Your task to perform on an android device: Open Maps and search for coffee Image 0: 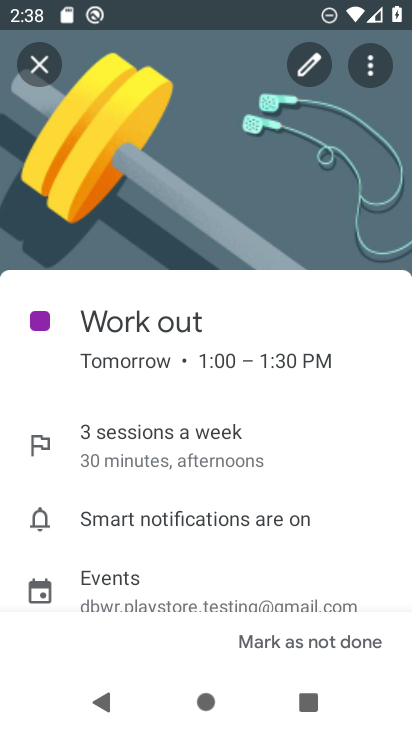
Step 0: press back button
Your task to perform on an android device: Open Maps and search for coffee Image 1: 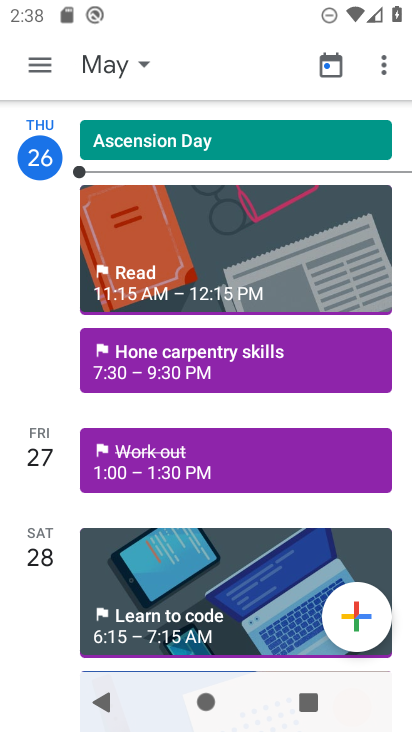
Step 1: press home button
Your task to perform on an android device: Open Maps and search for coffee Image 2: 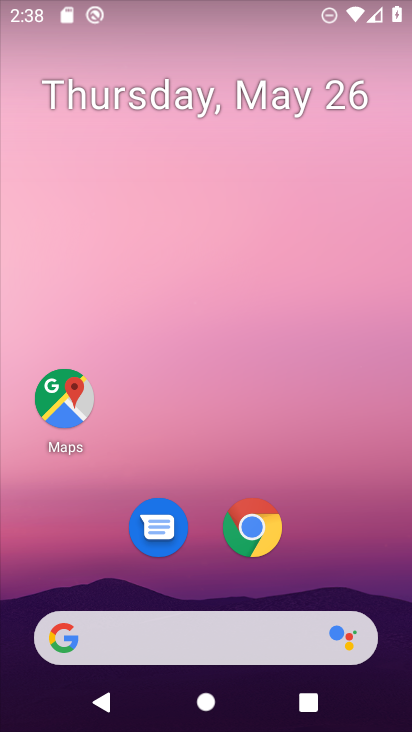
Step 2: click (50, 392)
Your task to perform on an android device: Open Maps and search for coffee Image 3: 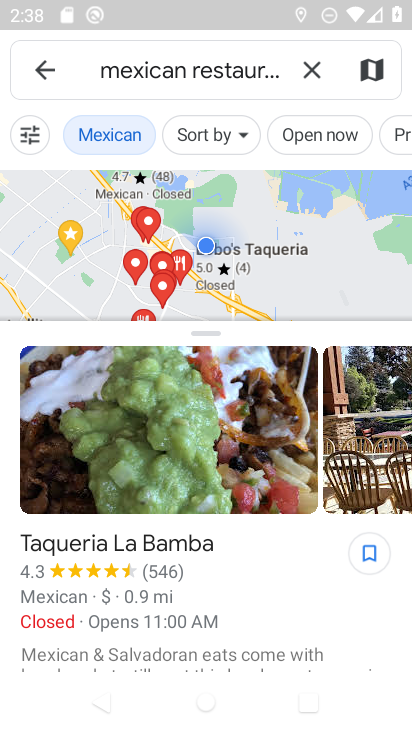
Step 3: click (310, 55)
Your task to perform on an android device: Open Maps and search for coffee Image 4: 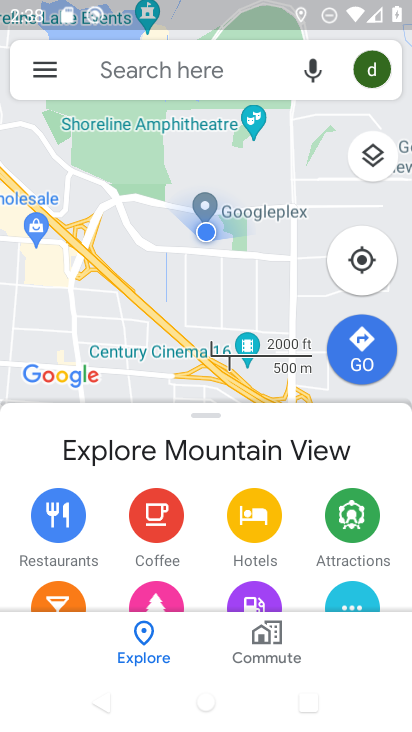
Step 4: click (177, 84)
Your task to perform on an android device: Open Maps and search for coffee Image 5: 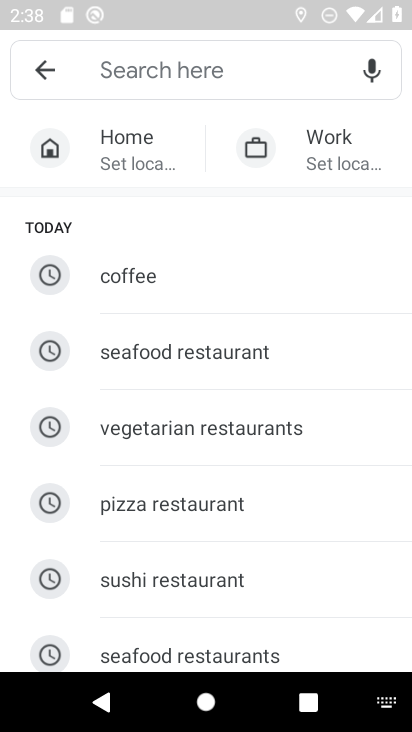
Step 5: click (137, 273)
Your task to perform on an android device: Open Maps and search for coffee Image 6: 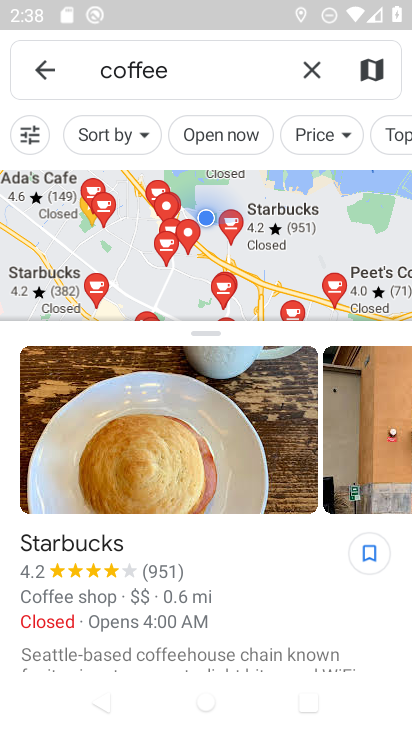
Step 6: task complete